Your task to perform on an android device: Do I have any events today? Image 0: 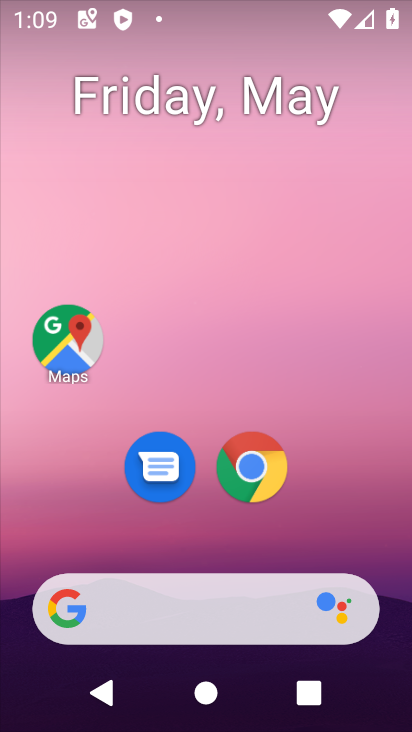
Step 0: press home button
Your task to perform on an android device: Do I have any events today? Image 1: 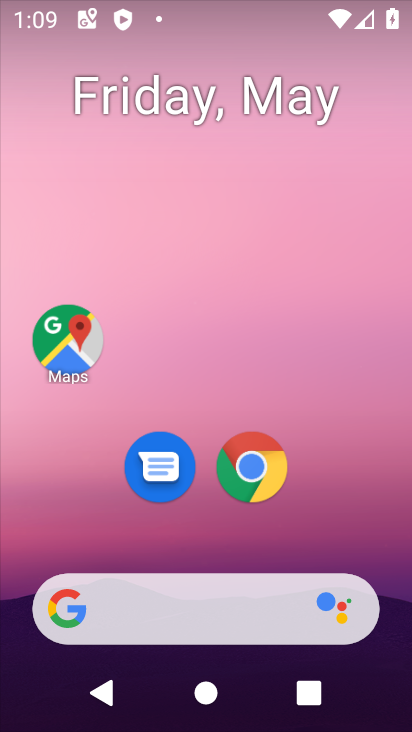
Step 1: drag from (342, 475) to (265, 57)
Your task to perform on an android device: Do I have any events today? Image 2: 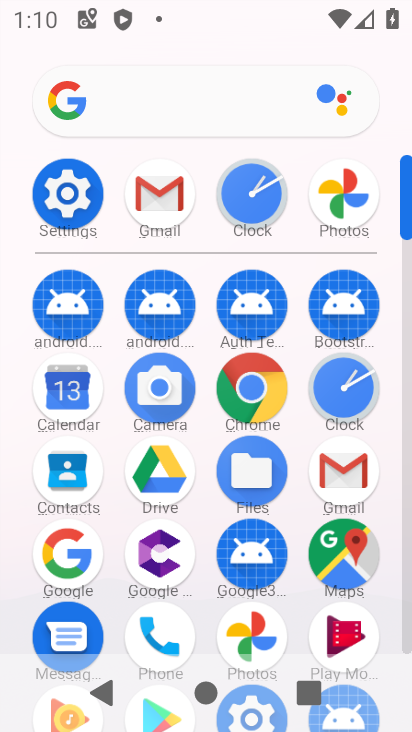
Step 2: click (70, 388)
Your task to perform on an android device: Do I have any events today? Image 3: 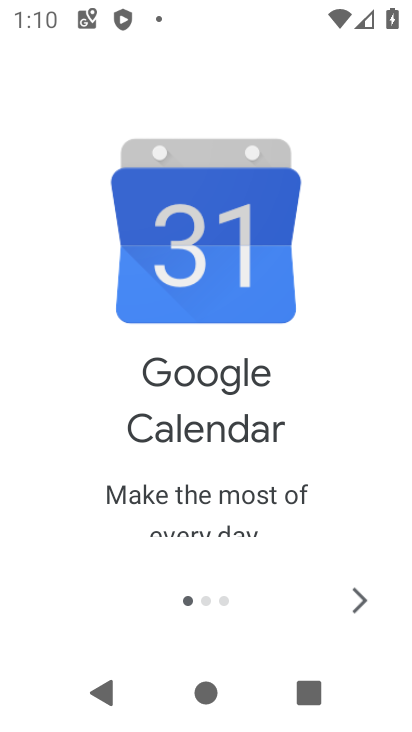
Step 3: click (362, 599)
Your task to perform on an android device: Do I have any events today? Image 4: 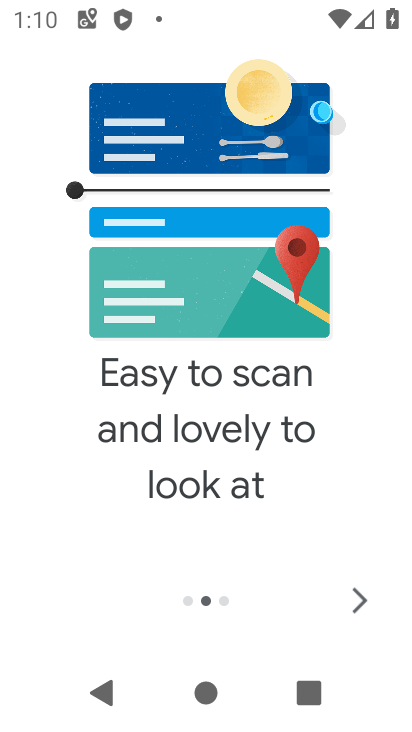
Step 4: click (362, 599)
Your task to perform on an android device: Do I have any events today? Image 5: 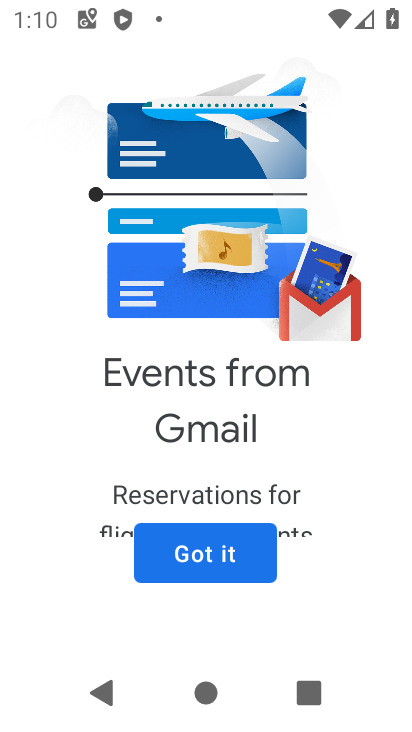
Step 5: click (205, 563)
Your task to perform on an android device: Do I have any events today? Image 6: 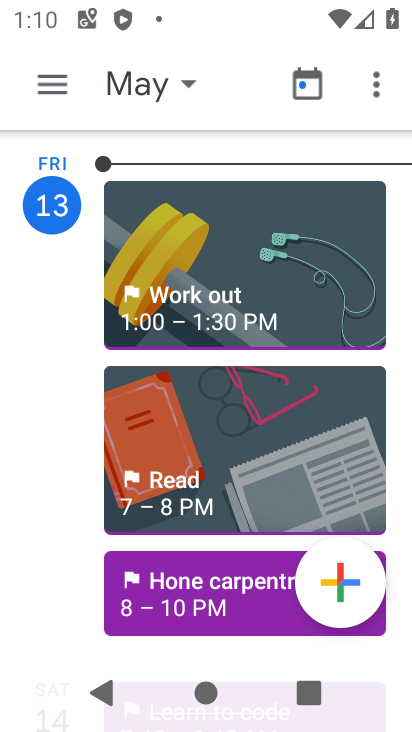
Step 6: click (318, 90)
Your task to perform on an android device: Do I have any events today? Image 7: 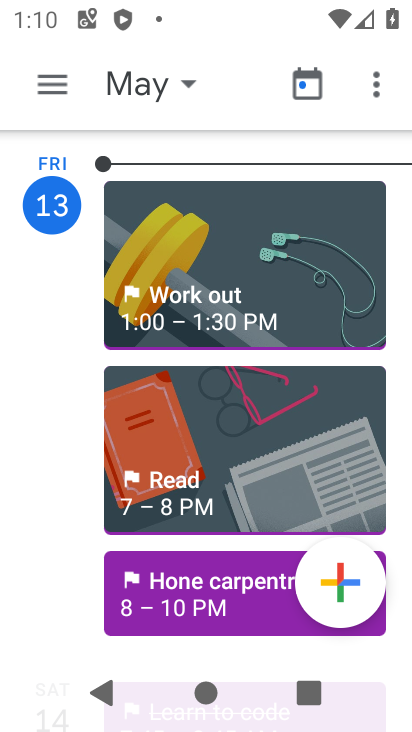
Step 7: click (229, 575)
Your task to perform on an android device: Do I have any events today? Image 8: 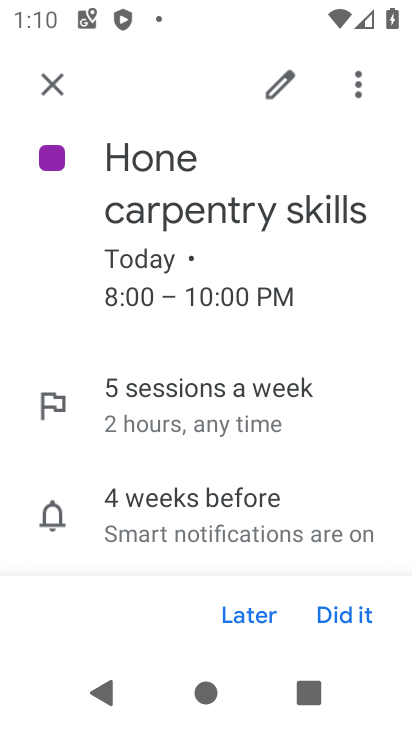
Step 8: task complete